Your task to perform on an android device: Go to settings Image 0: 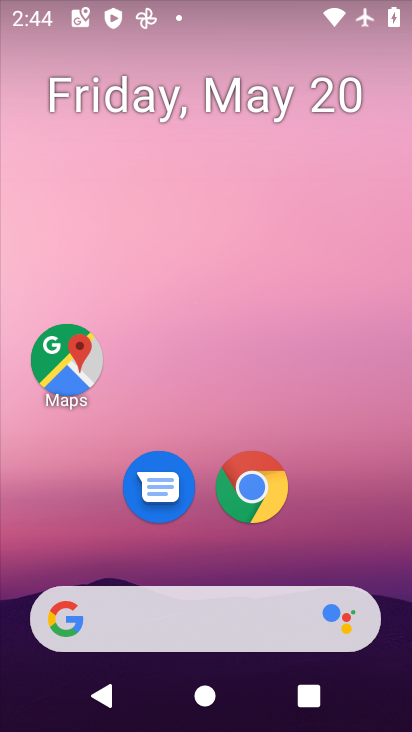
Step 0: drag from (329, 555) to (317, 115)
Your task to perform on an android device: Go to settings Image 1: 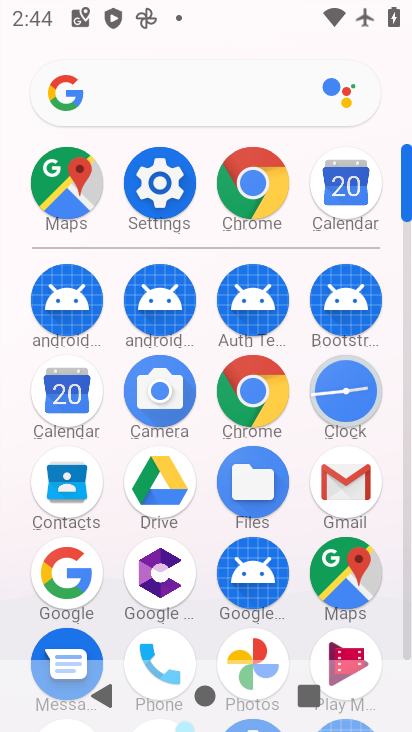
Step 1: click (150, 204)
Your task to perform on an android device: Go to settings Image 2: 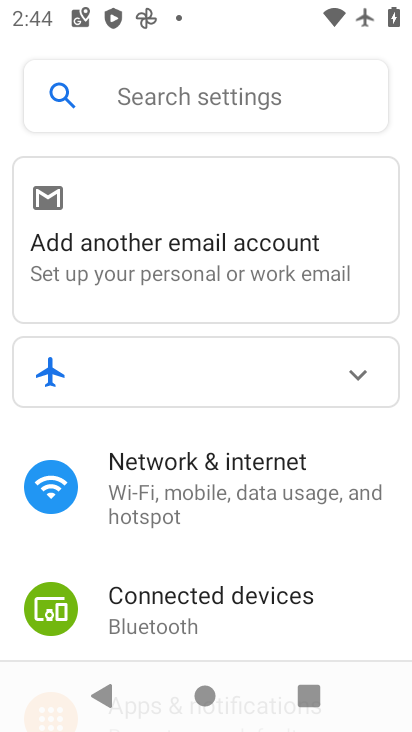
Step 2: task complete